Your task to perform on an android device: Open the map Image 0: 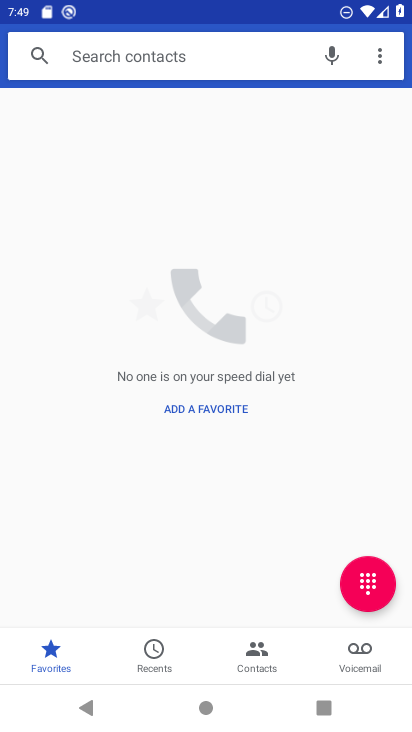
Step 0: press back button
Your task to perform on an android device: Open the map Image 1: 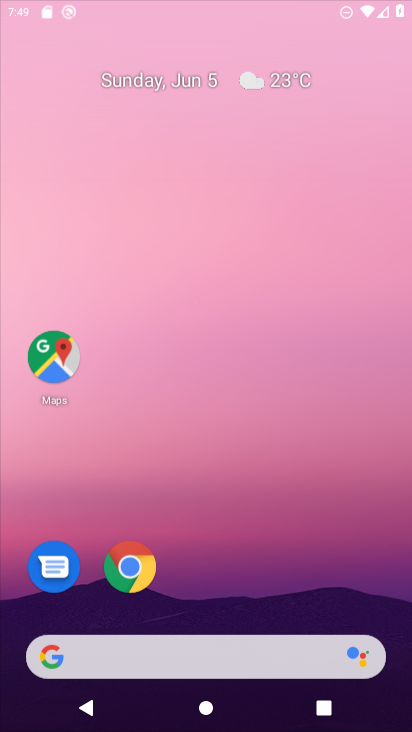
Step 1: press home button
Your task to perform on an android device: Open the map Image 2: 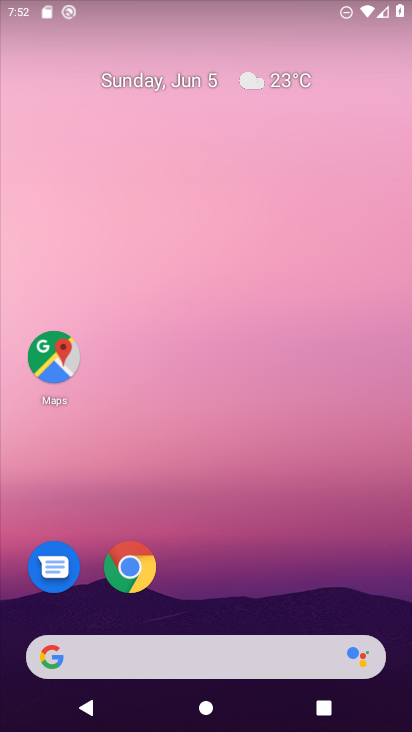
Step 2: drag from (380, 590) to (263, 57)
Your task to perform on an android device: Open the map Image 3: 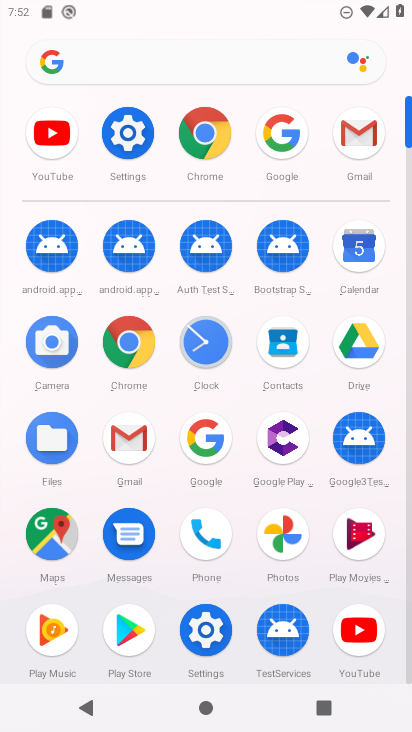
Step 3: click (36, 544)
Your task to perform on an android device: Open the map Image 4: 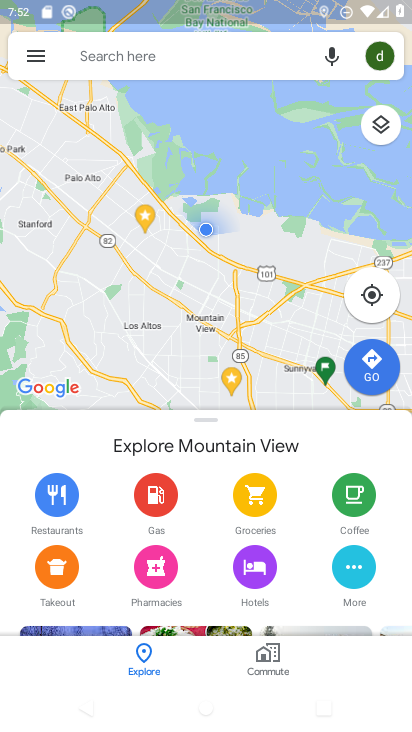
Step 4: task complete